Your task to perform on an android device: uninstall "Google Photos" Image 0: 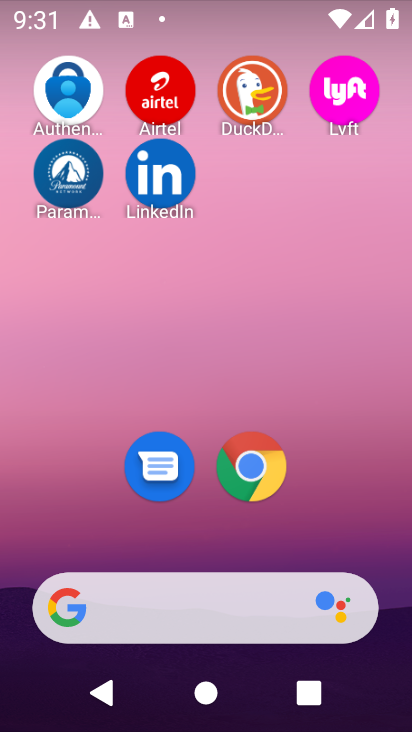
Step 0: drag from (211, 529) to (300, 0)
Your task to perform on an android device: uninstall "Google Photos" Image 1: 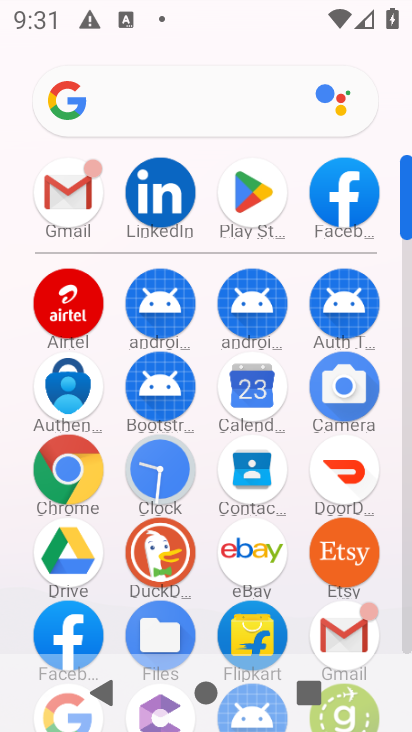
Step 1: click (246, 187)
Your task to perform on an android device: uninstall "Google Photos" Image 2: 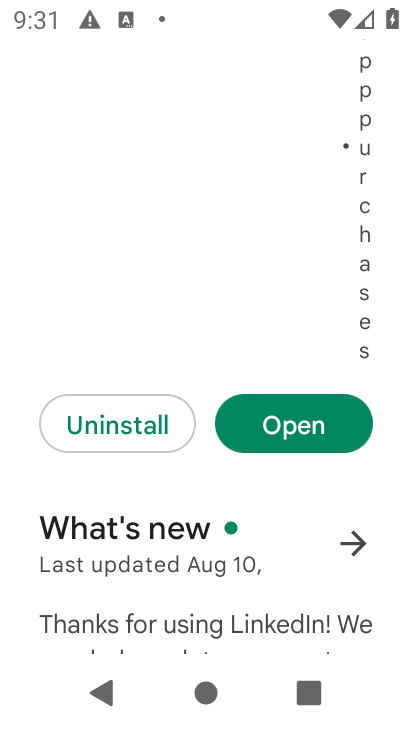
Step 2: drag from (245, 165) to (228, 701)
Your task to perform on an android device: uninstall "Google Photos" Image 3: 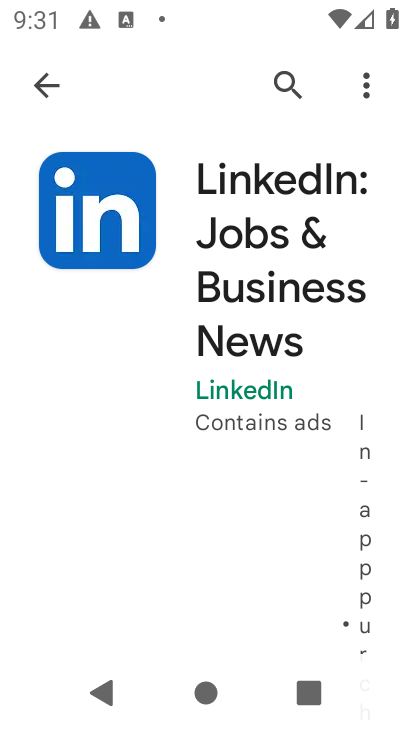
Step 3: click (289, 67)
Your task to perform on an android device: uninstall "Google Photos" Image 4: 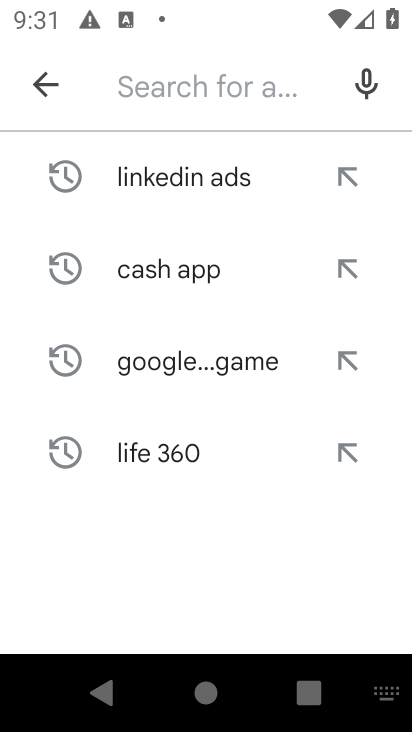
Step 4: click (126, 94)
Your task to perform on an android device: uninstall "Google Photos" Image 5: 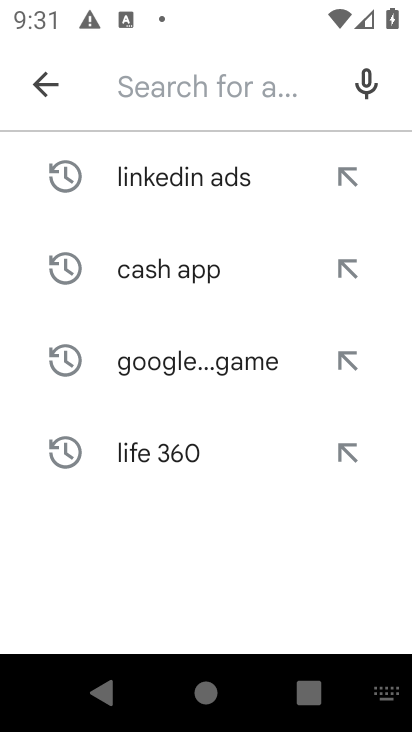
Step 5: type "Google Photos"
Your task to perform on an android device: uninstall "Google Photos" Image 6: 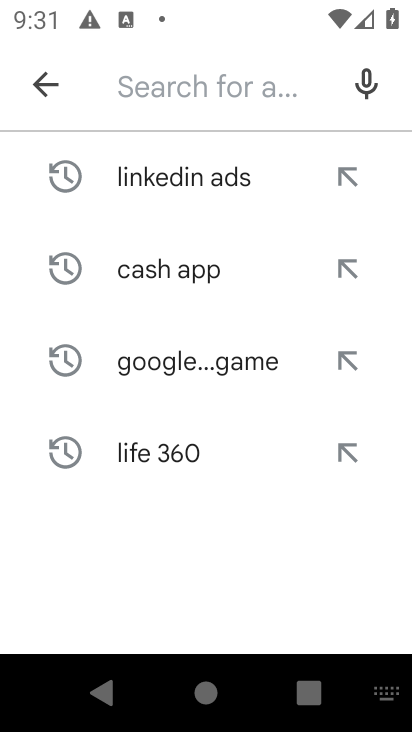
Step 6: click (234, 571)
Your task to perform on an android device: uninstall "Google Photos" Image 7: 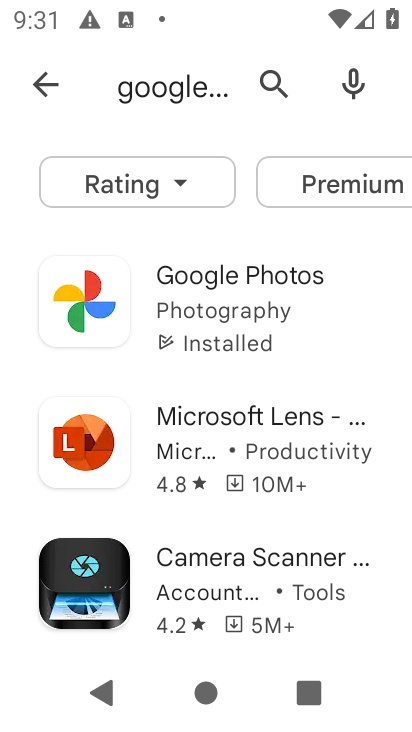
Step 7: click (266, 285)
Your task to perform on an android device: uninstall "Google Photos" Image 8: 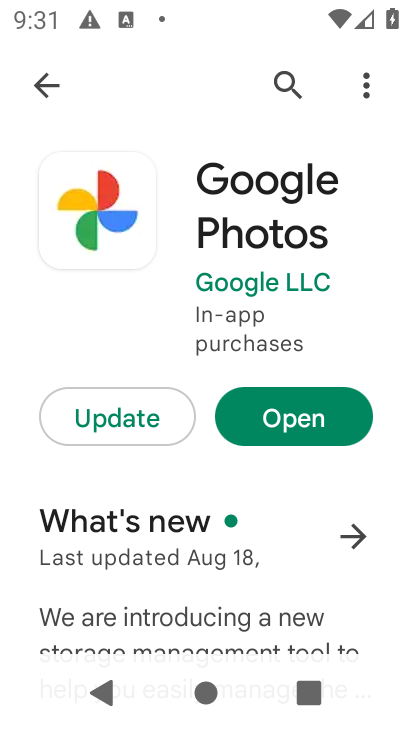
Step 8: task complete